Your task to perform on an android device: clear all cookies in the chrome app Image 0: 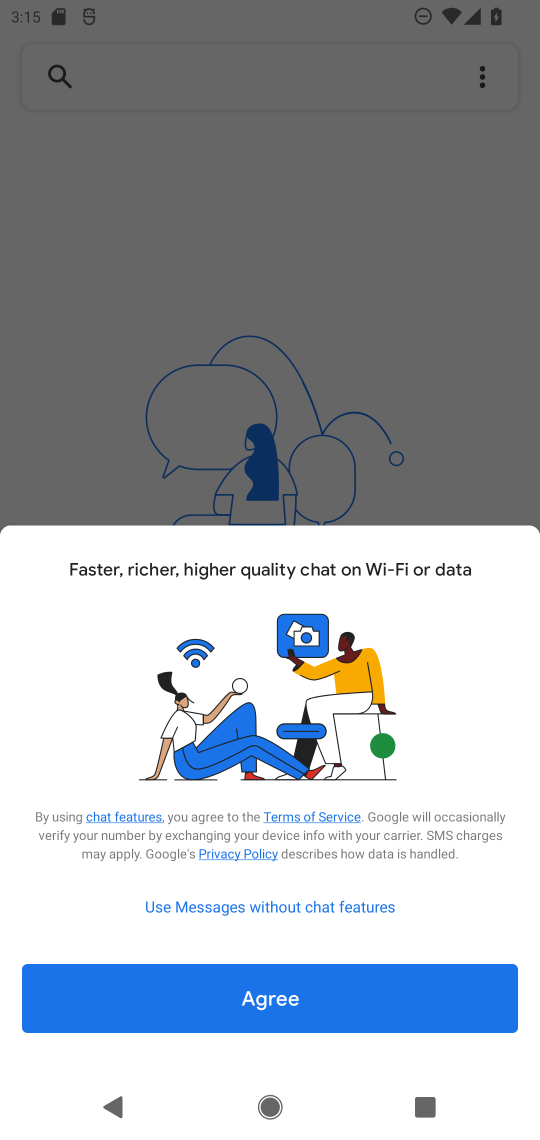
Step 0: press home button
Your task to perform on an android device: clear all cookies in the chrome app Image 1: 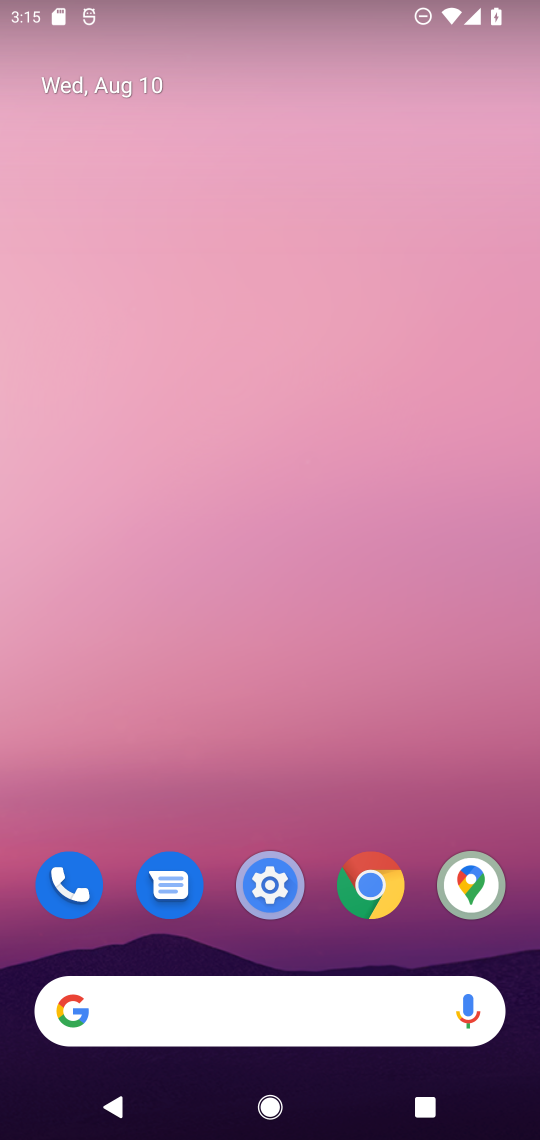
Step 1: click (375, 886)
Your task to perform on an android device: clear all cookies in the chrome app Image 2: 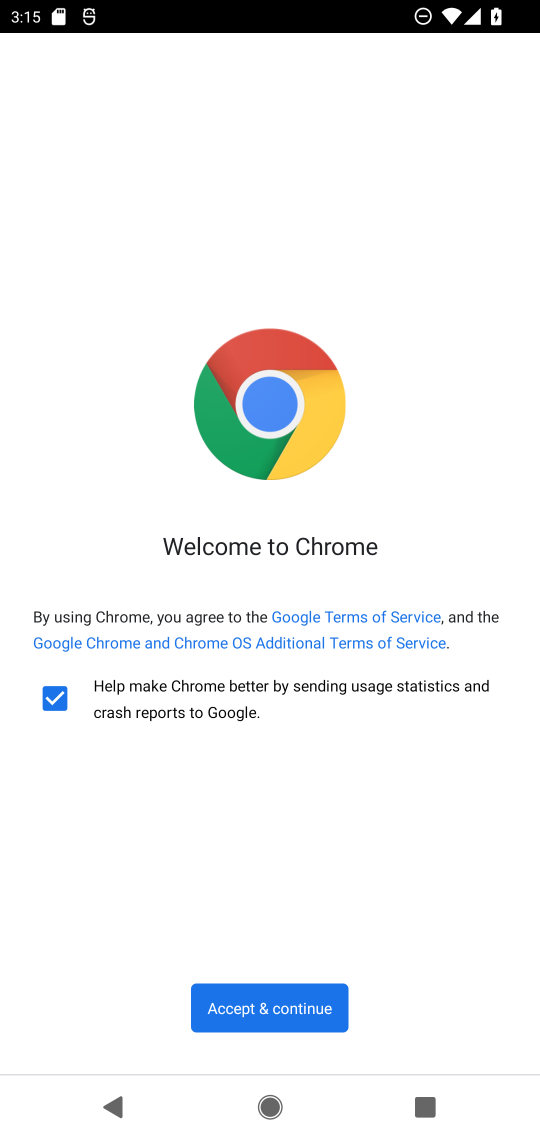
Step 2: click (286, 1016)
Your task to perform on an android device: clear all cookies in the chrome app Image 3: 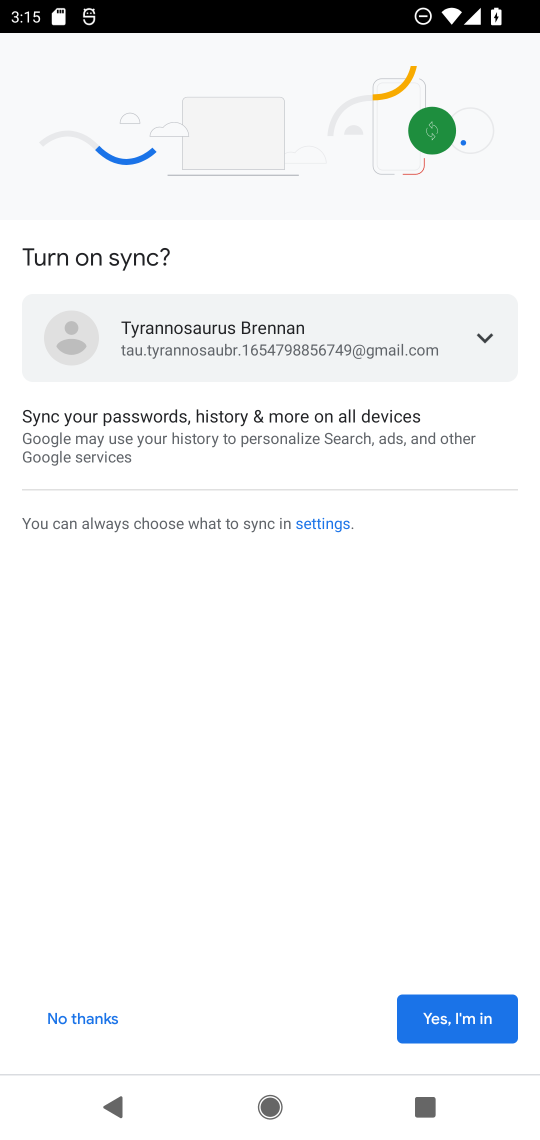
Step 3: click (76, 1012)
Your task to perform on an android device: clear all cookies in the chrome app Image 4: 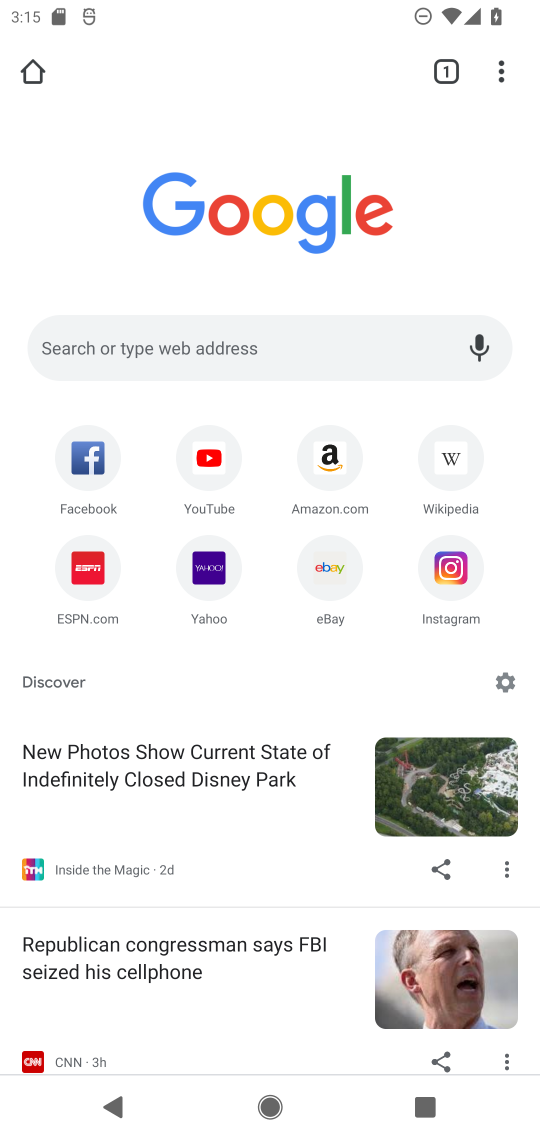
Step 4: click (505, 69)
Your task to perform on an android device: clear all cookies in the chrome app Image 5: 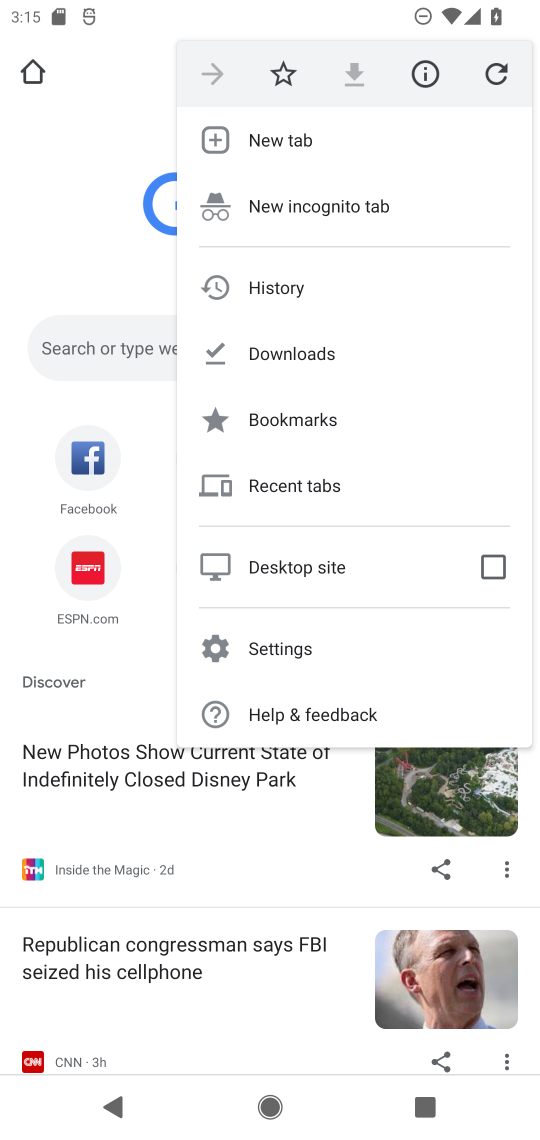
Step 5: click (285, 636)
Your task to perform on an android device: clear all cookies in the chrome app Image 6: 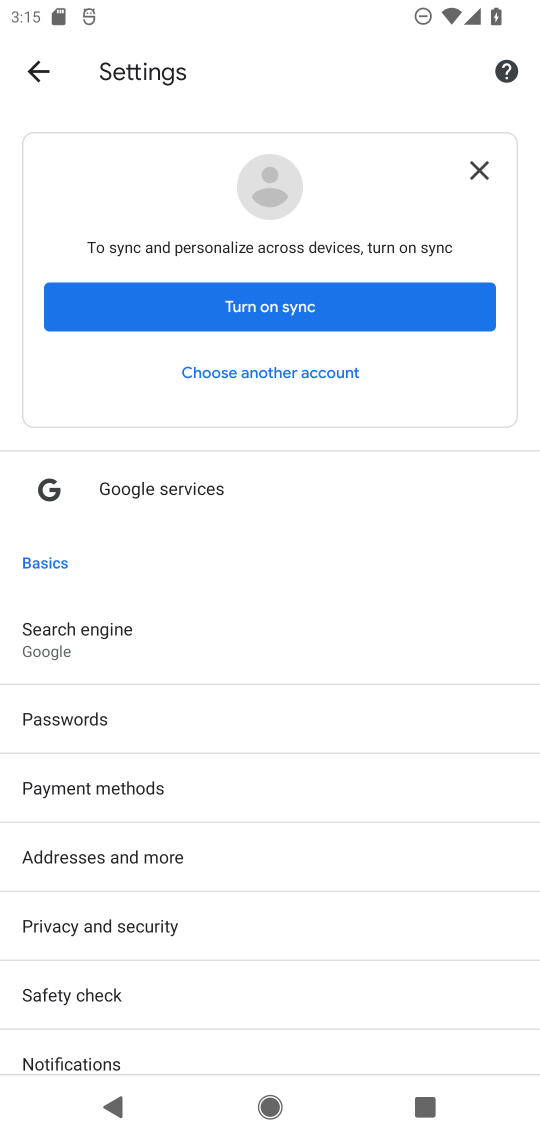
Step 6: drag from (244, 941) to (236, 481)
Your task to perform on an android device: clear all cookies in the chrome app Image 7: 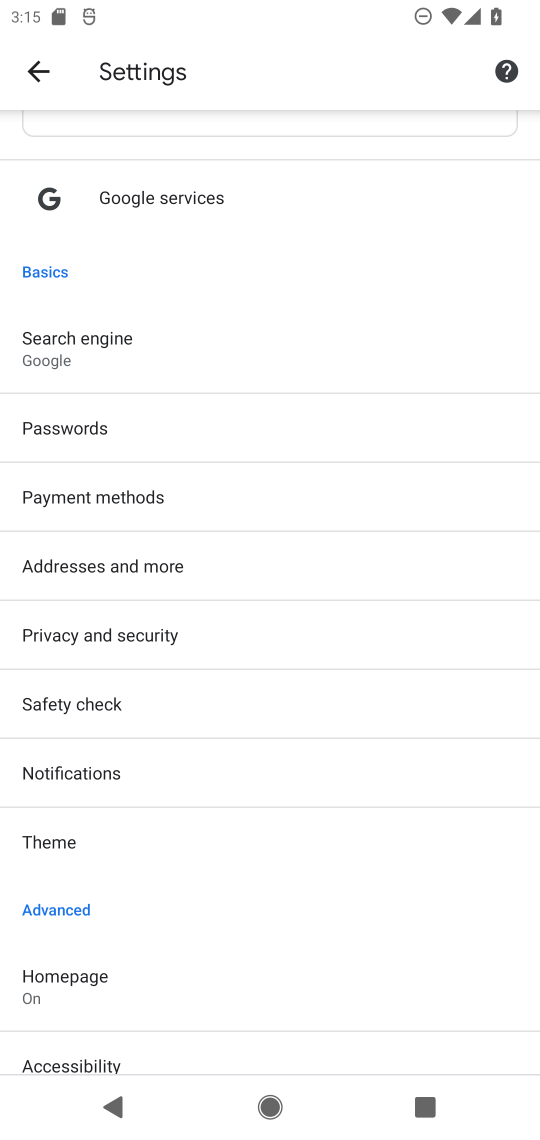
Step 7: click (116, 636)
Your task to perform on an android device: clear all cookies in the chrome app Image 8: 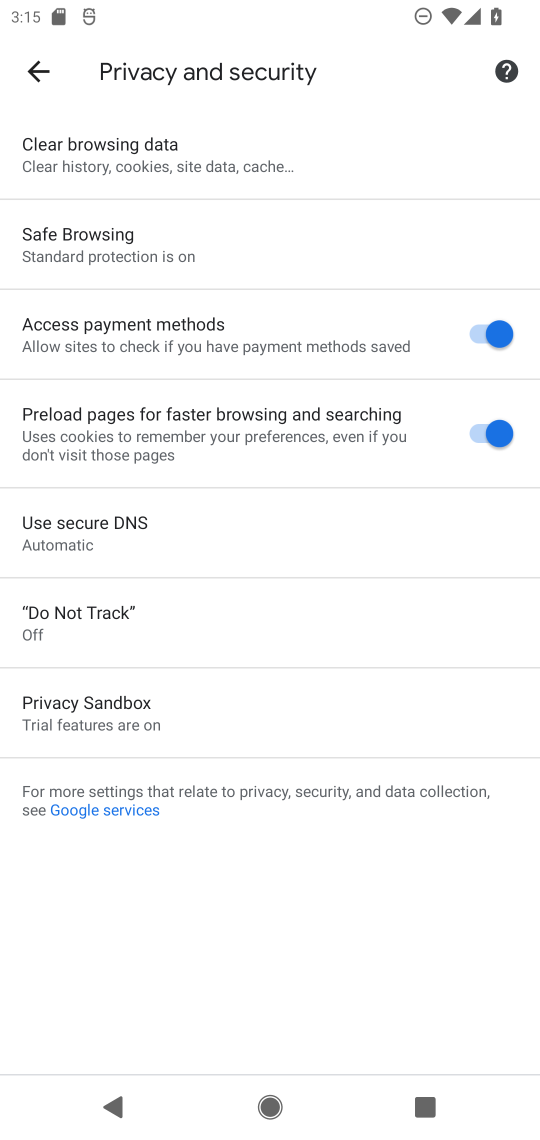
Step 8: click (93, 153)
Your task to perform on an android device: clear all cookies in the chrome app Image 9: 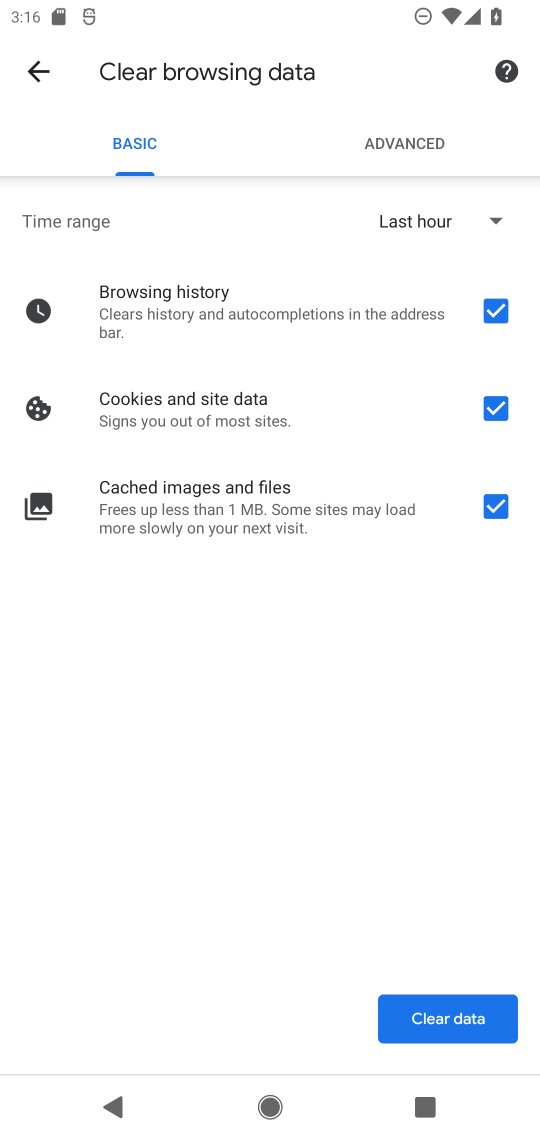
Step 9: click (510, 310)
Your task to perform on an android device: clear all cookies in the chrome app Image 10: 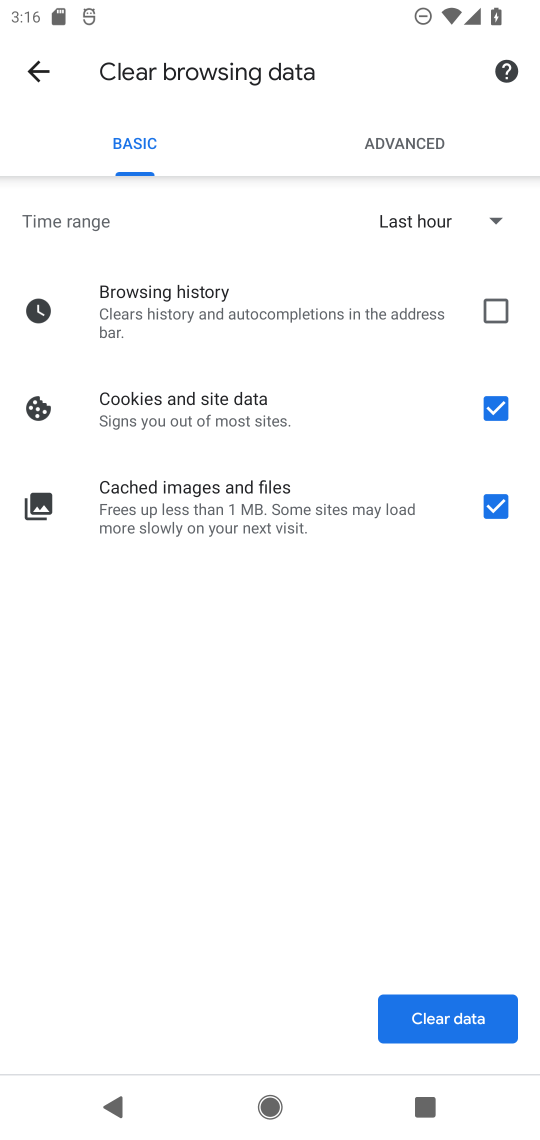
Step 10: click (507, 505)
Your task to perform on an android device: clear all cookies in the chrome app Image 11: 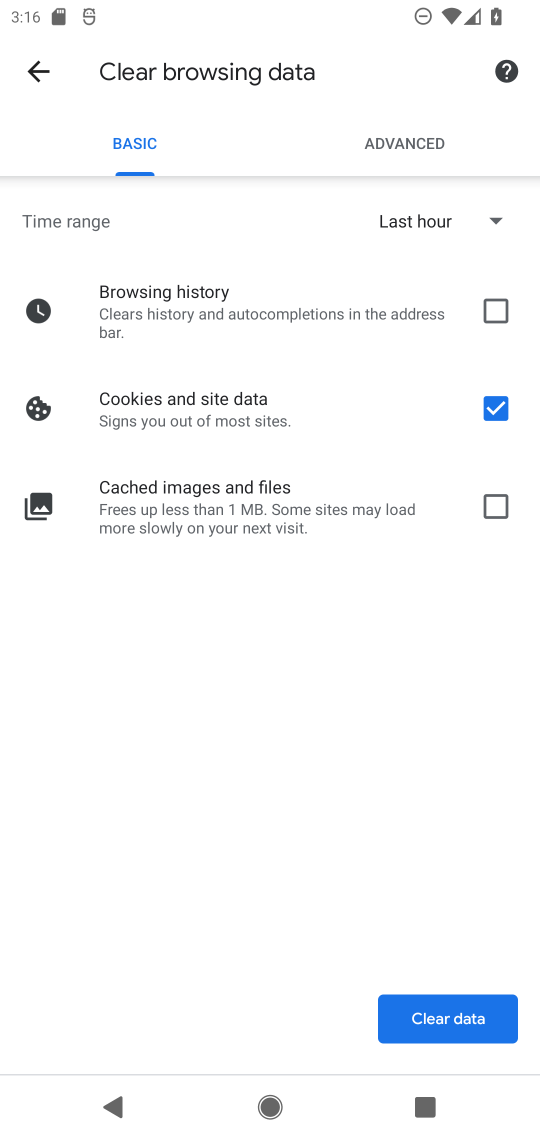
Step 11: click (443, 1018)
Your task to perform on an android device: clear all cookies in the chrome app Image 12: 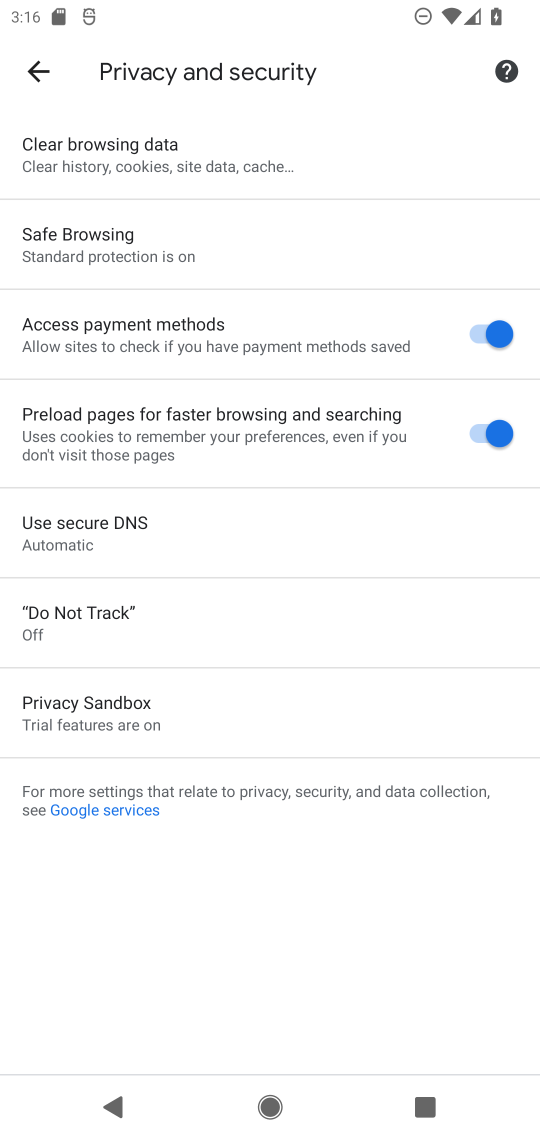
Step 12: task complete